Your task to perform on an android device: What is the recent news? Image 0: 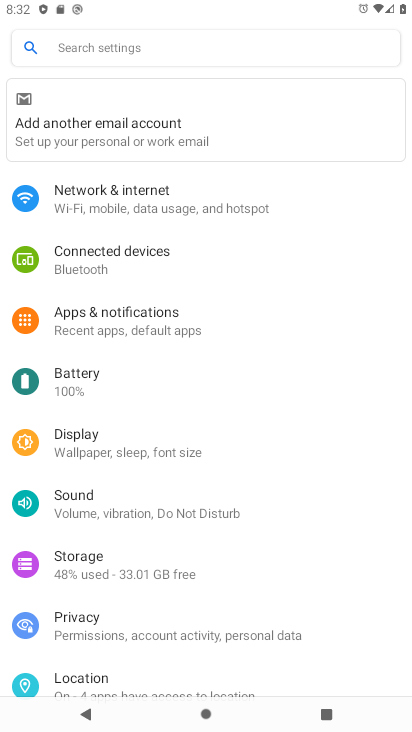
Step 0: press home button
Your task to perform on an android device: What is the recent news? Image 1: 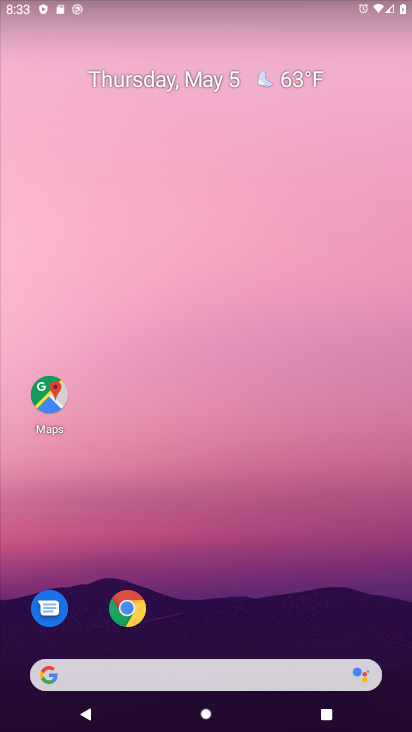
Step 1: click (125, 607)
Your task to perform on an android device: What is the recent news? Image 2: 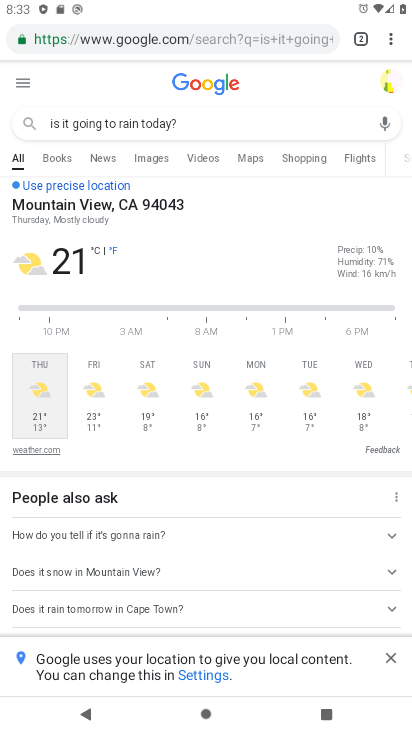
Step 2: click (359, 37)
Your task to perform on an android device: What is the recent news? Image 3: 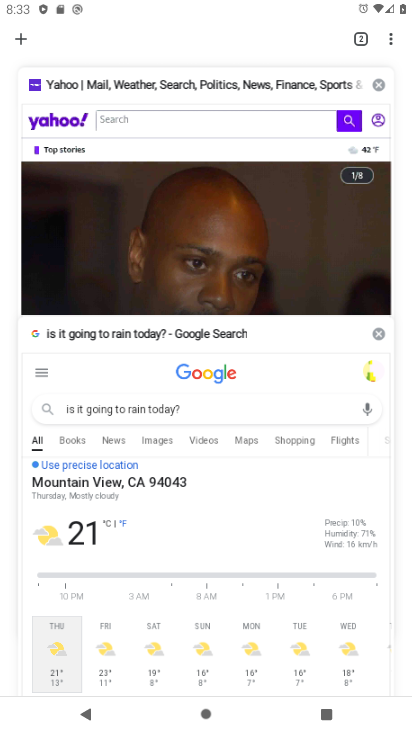
Step 3: click (20, 36)
Your task to perform on an android device: What is the recent news? Image 4: 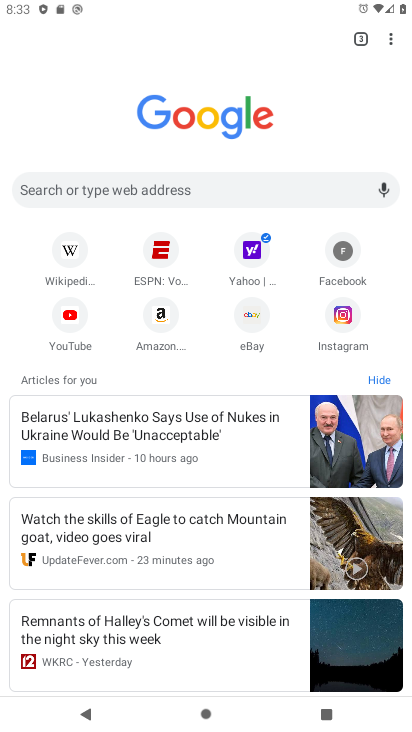
Step 4: click (113, 193)
Your task to perform on an android device: What is the recent news? Image 5: 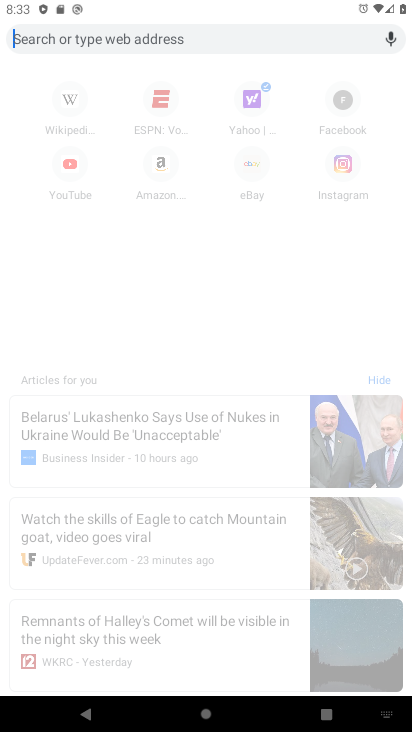
Step 5: type "what is the recent"
Your task to perform on an android device: What is the recent news? Image 6: 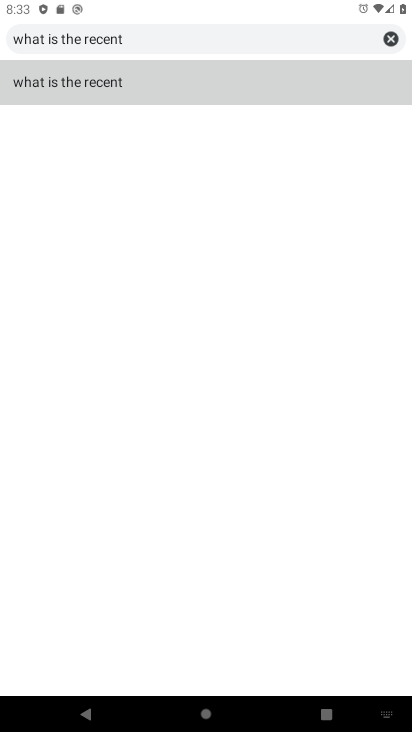
Step 6: type " news"
Your task to perform on an android device: What is the recent news? Image 7: 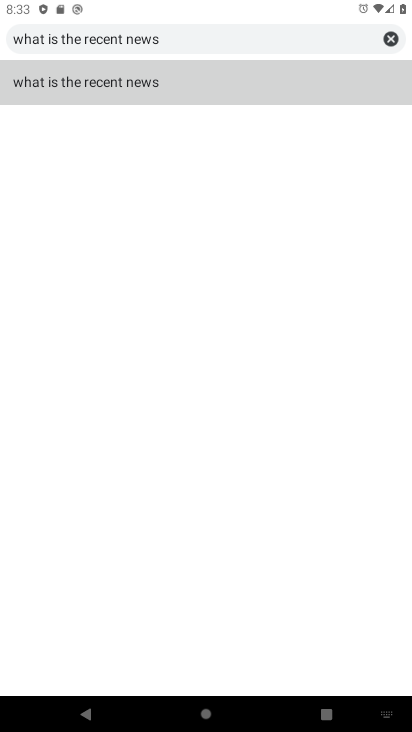
Step 7: click (140, 81)
Your task to perform on an android device: What is the recent news? Image 8: 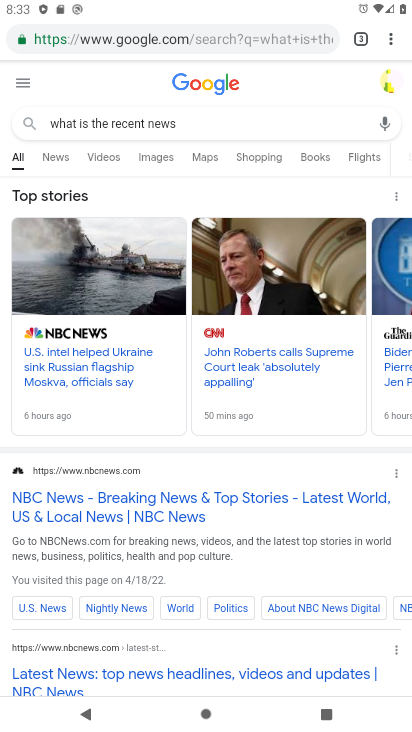
Step 8: task complete